Your task to perform on an android device: delete a single message in the gmail app Image 0: 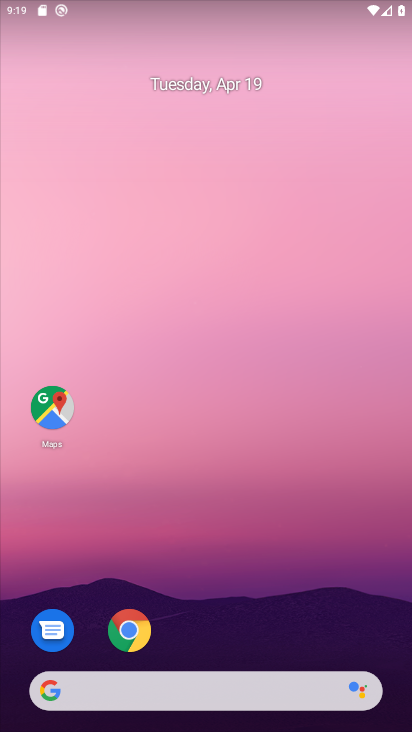
Step 0: drag from (279, 672) to (324, 102)
Your task to perform on an android device: delete a single message in the gmail app Image 1: 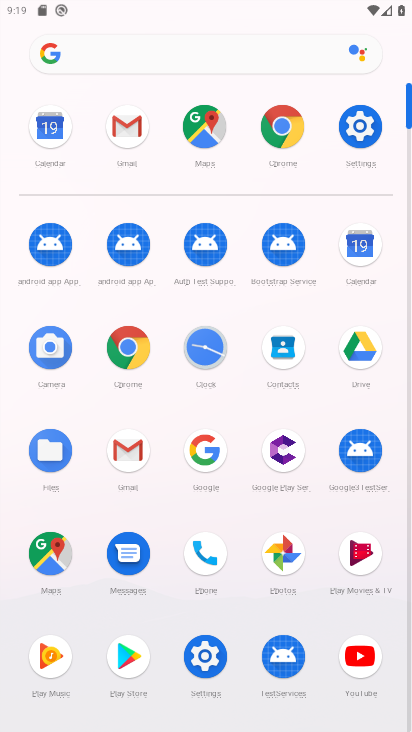
Step 1: click (127, 465)
Your task to perform on an android device: delete a single message in the gmail app Image 2: 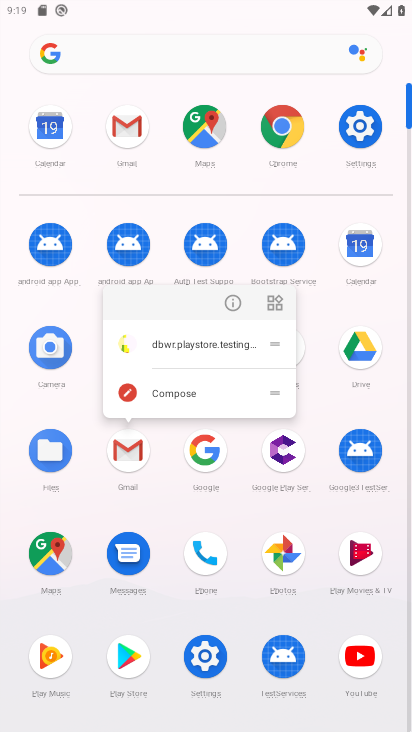
Step 2: click (133, 454)
Your task to perform on an android device: delete a single message in the gmail app Image 3: 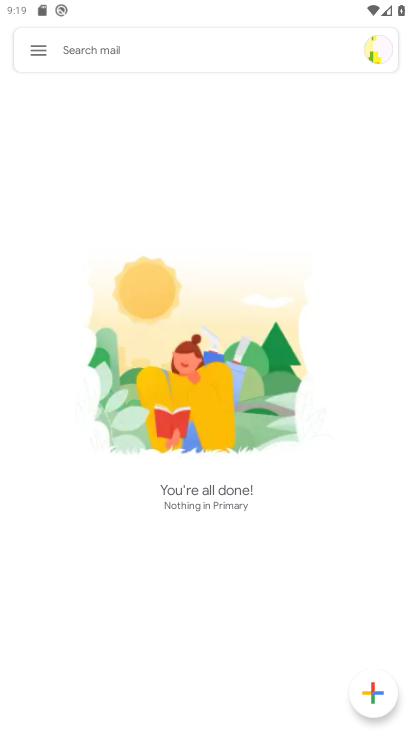
Step 3: click (44, 47)
Your task to perform on an android device: delete a single message in the gmail app Image 4: 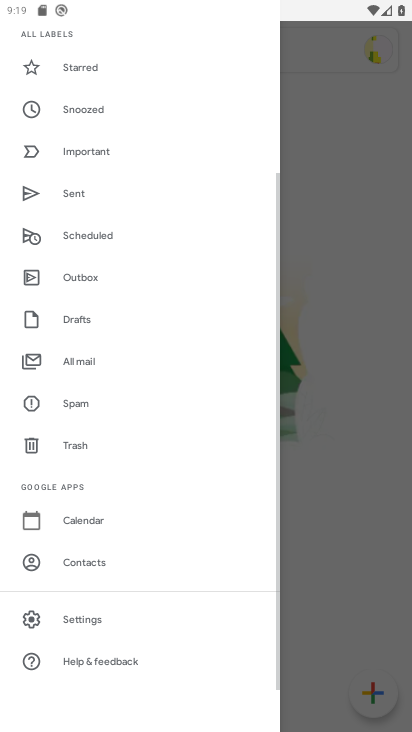
Step 4: click (107, 363)
Your task to perform on an android device: delete a single message in the gmail app Image 5: 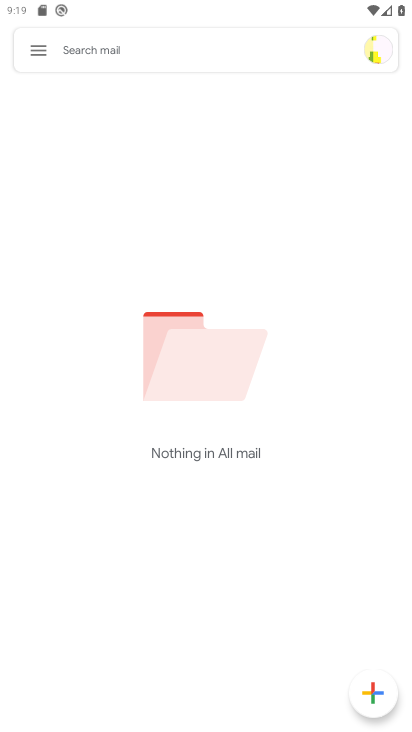
Step 5: task complete